Your task to perform on an android device: Set the phone to "Do not disturb". Image 0: 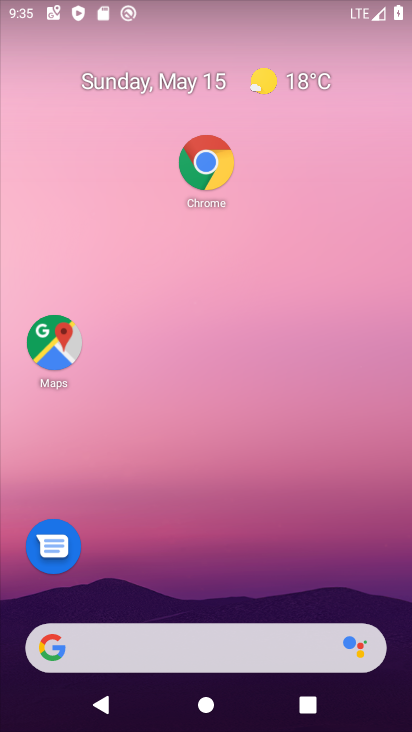
Step 0: drag from (153, 109) to (150, 462)
Your task to perform on an android device: Set the phone to "Do not disturb". Image 1: 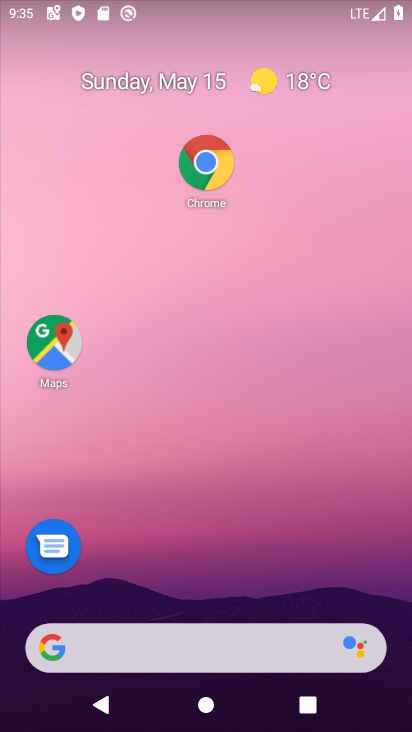
Step 1: drag from (150, 6) to (157, 501)
Your task to perform on an android device: Set the phone to "Do not disturb". Image 2: 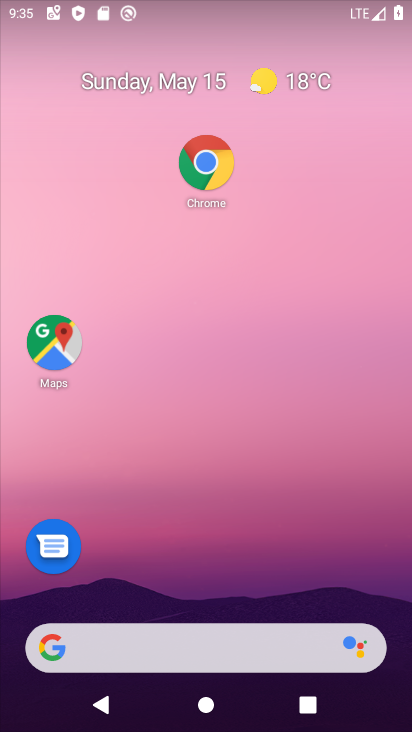
Step 2: drag from (155, 9) to (166, 679)
Your task to perform on an android device: Set the phone to "Do not disturb". Image 3: 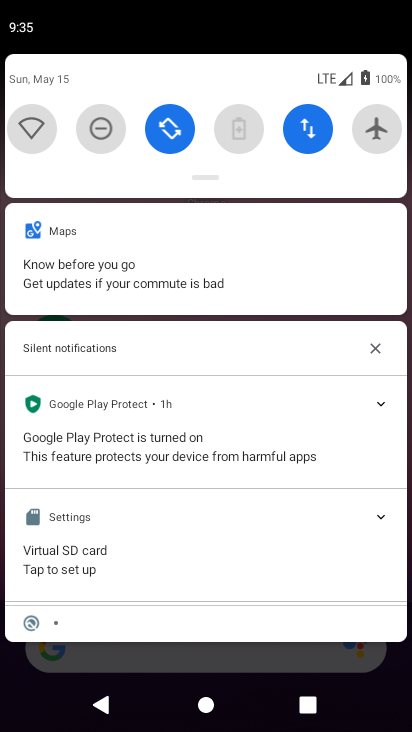
Step 3: click (99, 124)
Your task to perform on an android device: Set the phone to "Do not disturb". Image 4: 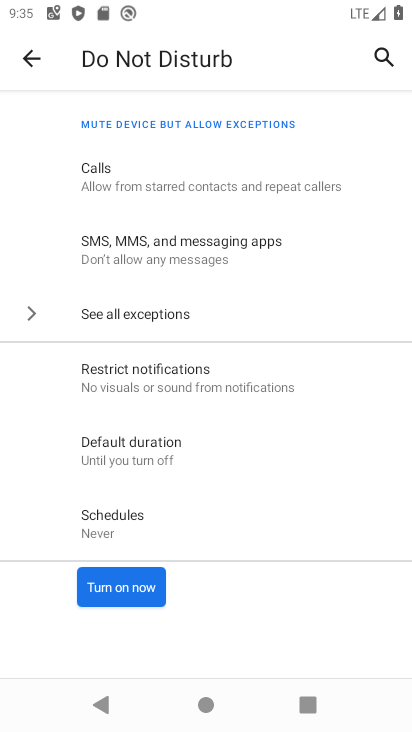
Step 4: click (125, 586)
Your task to perform on an android device: Set the phone to "Do not disturb". Image 5: 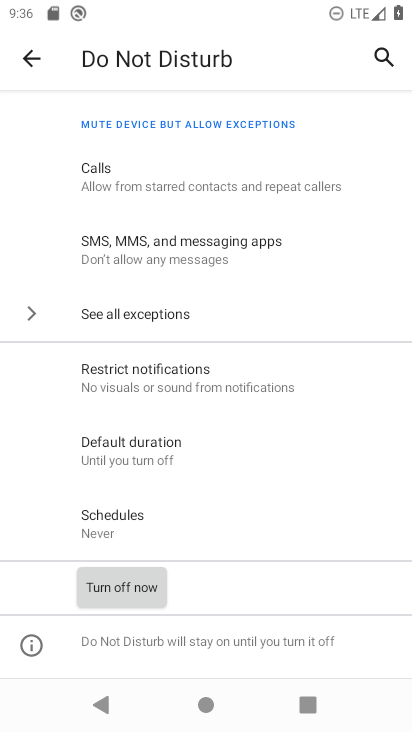
Step 5: task complete